Your task to perform on an android device: Turn on the flashlight Image 0: 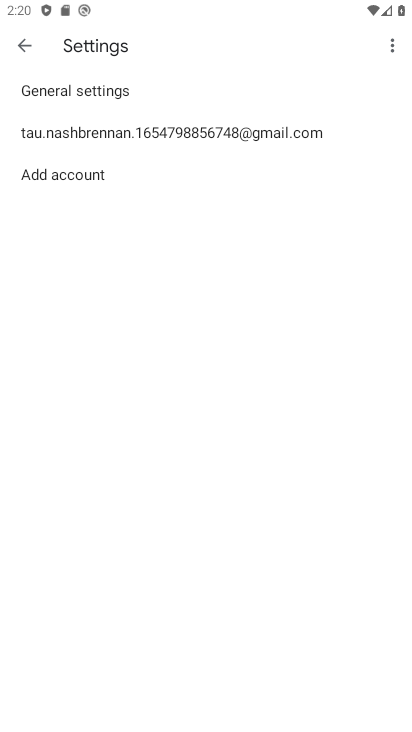
Step 0: press home button
Your task to perform on an android device: Turn on the flashlight Image 1: 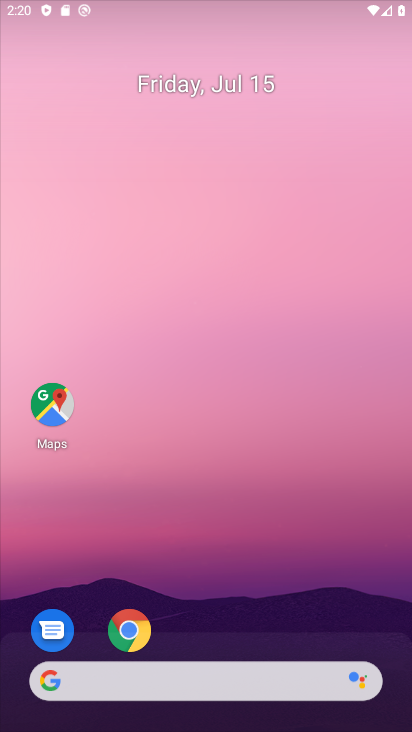
Step 1: drag from (243, 65) to (221, 17)
Your task to perform on an android device: Turn on the flashlight Image 2: 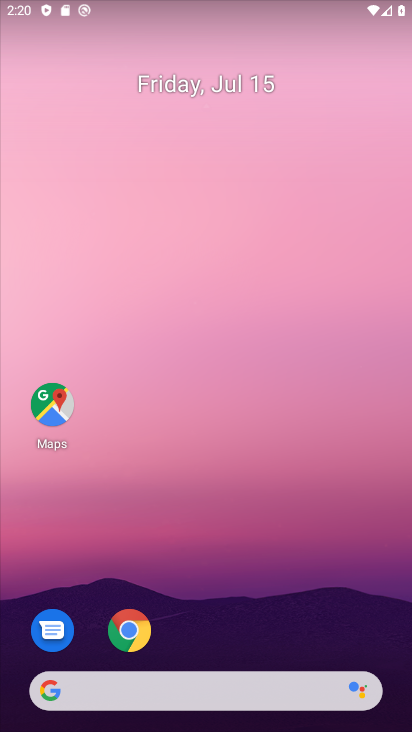
Step 2: drag from (307, 260) to (317, 104)
Your task to perform on an android device: Turn on the flashlight Image 3: 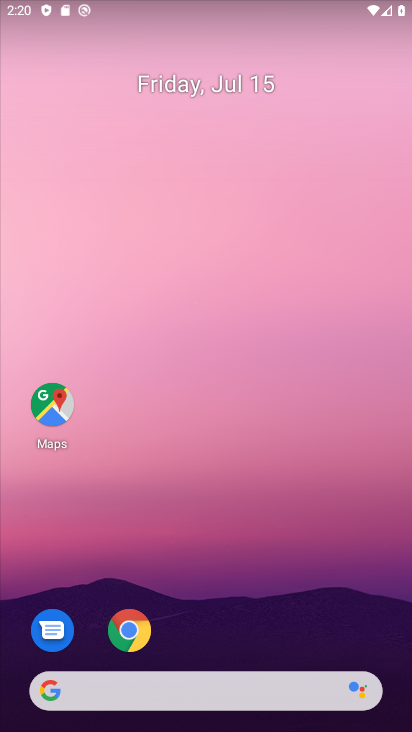
Step 3: drag from (257, 582) to (215, 4)
Your task to perform on an android device: Turn on the flashlight Image 4: 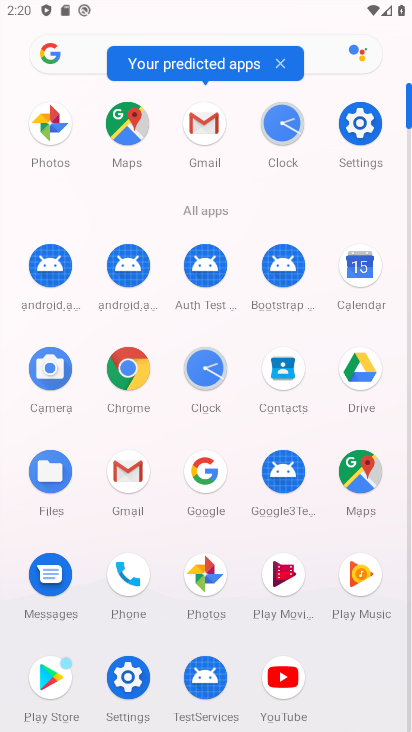
Step 4: click (360, 131)
Your task to perform on an android device: Turn on the flashlight Image 5: 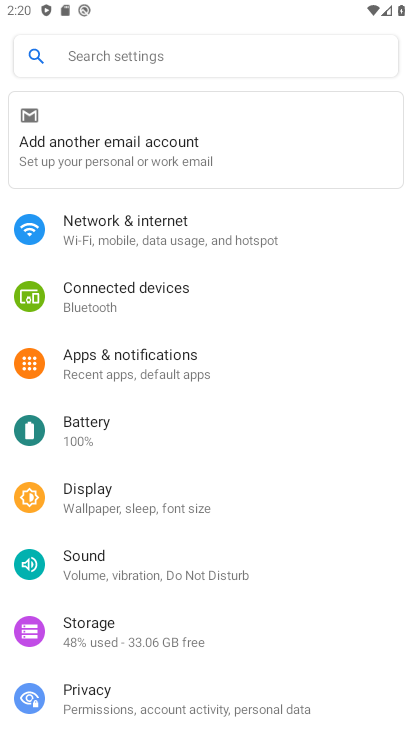
Step 5: task complete